Your task to perform on an android device: Search for vegetarian restaurants on Maps Image 0: 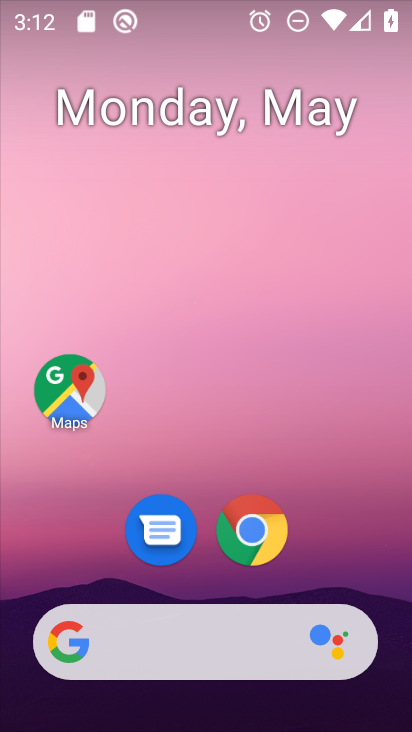
Step 0: click (67, 398)
Your task to perform on an android device: Search for vegetarian restaurants on Maps Image 1: 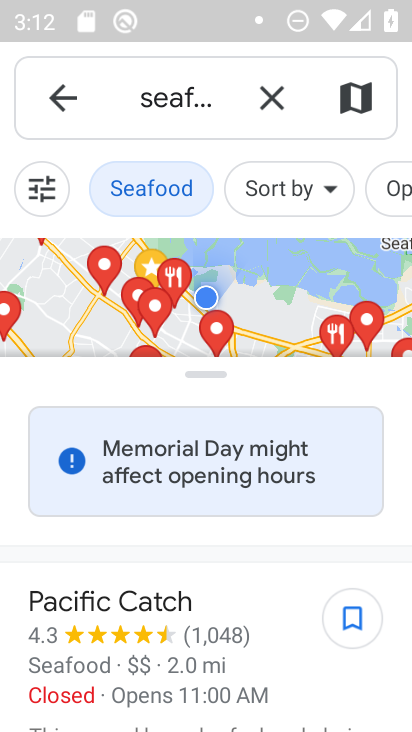
Step 1: click (251, 120)
Your task to perform on an android device: Search for vegetarian restaurants on Maps Image 2: 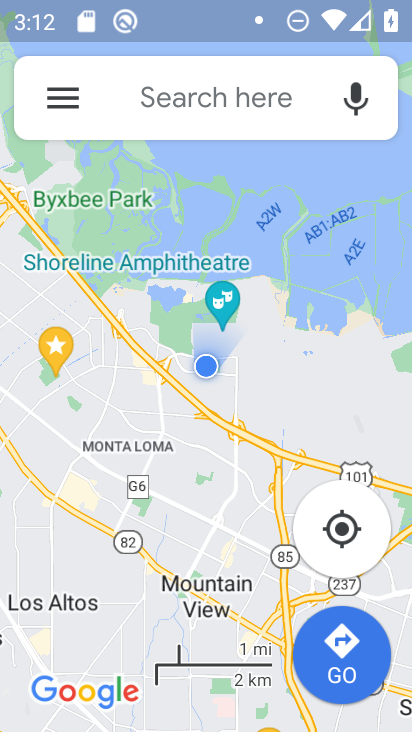
Step 2: click (258, 114)
Your task to perform on an android device: Search for vegetarian restaurants on Maps Image 3: 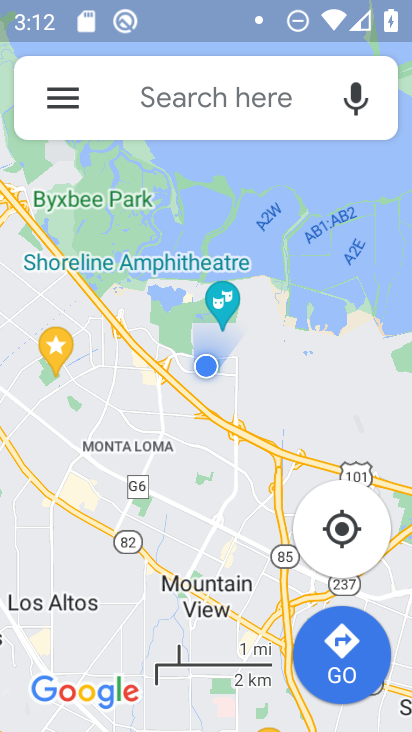
Step 3: click (269, 97)
Your task to perform on an android device: Search for vegetarian restaurants on Maps Image 4: 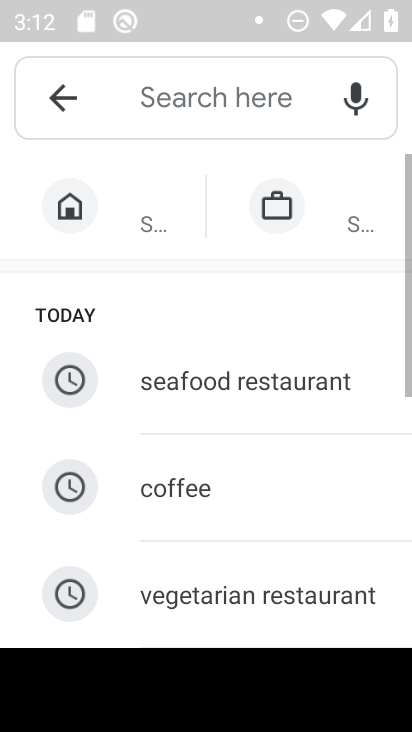
Step 4: click (128, 99)
Your task to perform on an android device: Search for vegetarian restaurants on Maps Image 5: 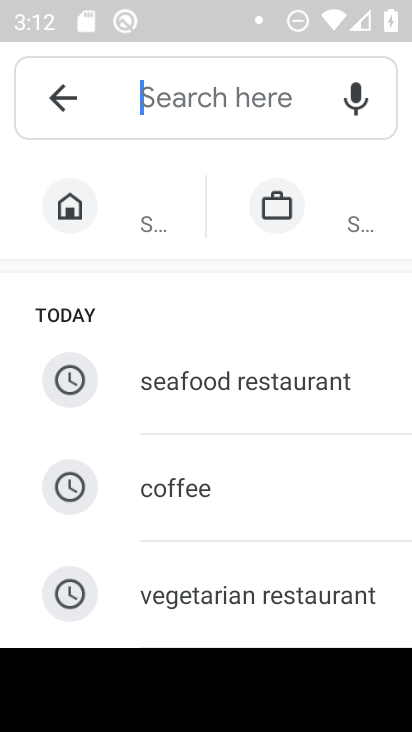
Step 5: click (204, 595)
Your task to perform on an android device: Search for vegetarian restaurants on Maps Image 6: 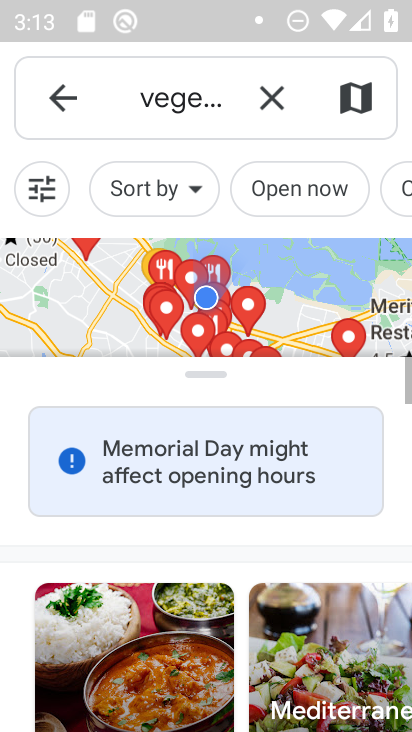
Step 6: task complete